Your task to perform on an android device: When is my next appointment? Image 0: 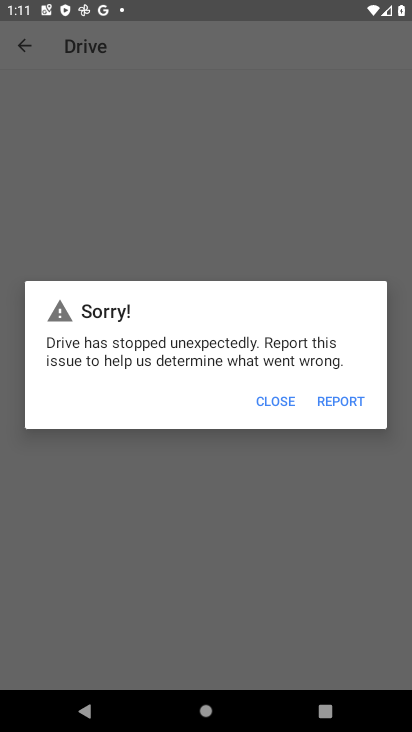
Step 0: press home button
Your task to perform on an android device: When is my next appointment? Image 1: 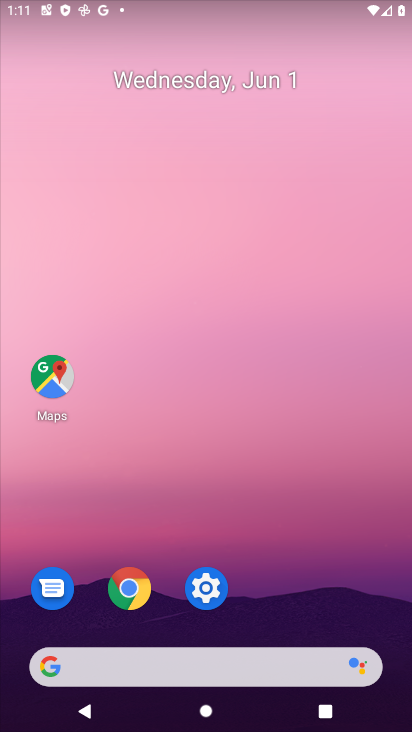
Step 1: drag from (243, 683) to (278, 226)
Your task to perform on an android device: When is my next appointment? Image 2: 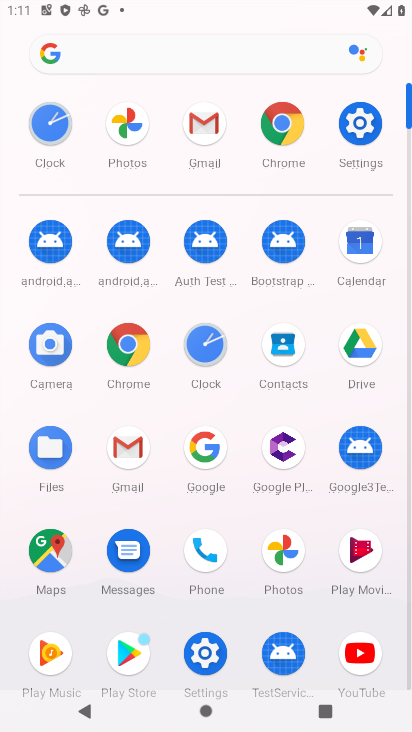
Step 2: click (354, 230)
Your task to perform on an android device: When is my next appointment? Image 3: 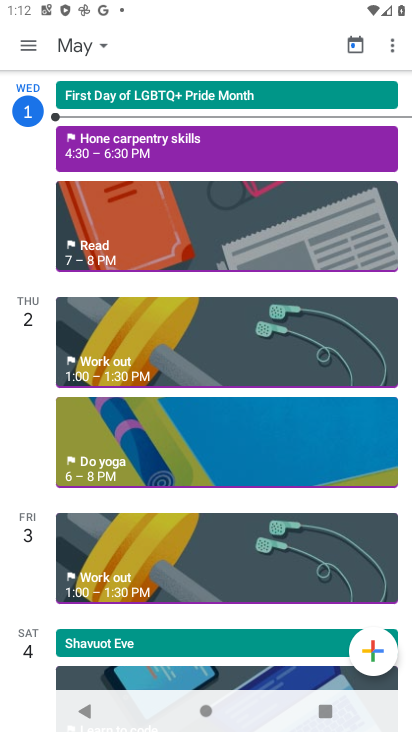
Step 3: task complete